Your task to perform on an android device: Go to Wikipedia Image 0: 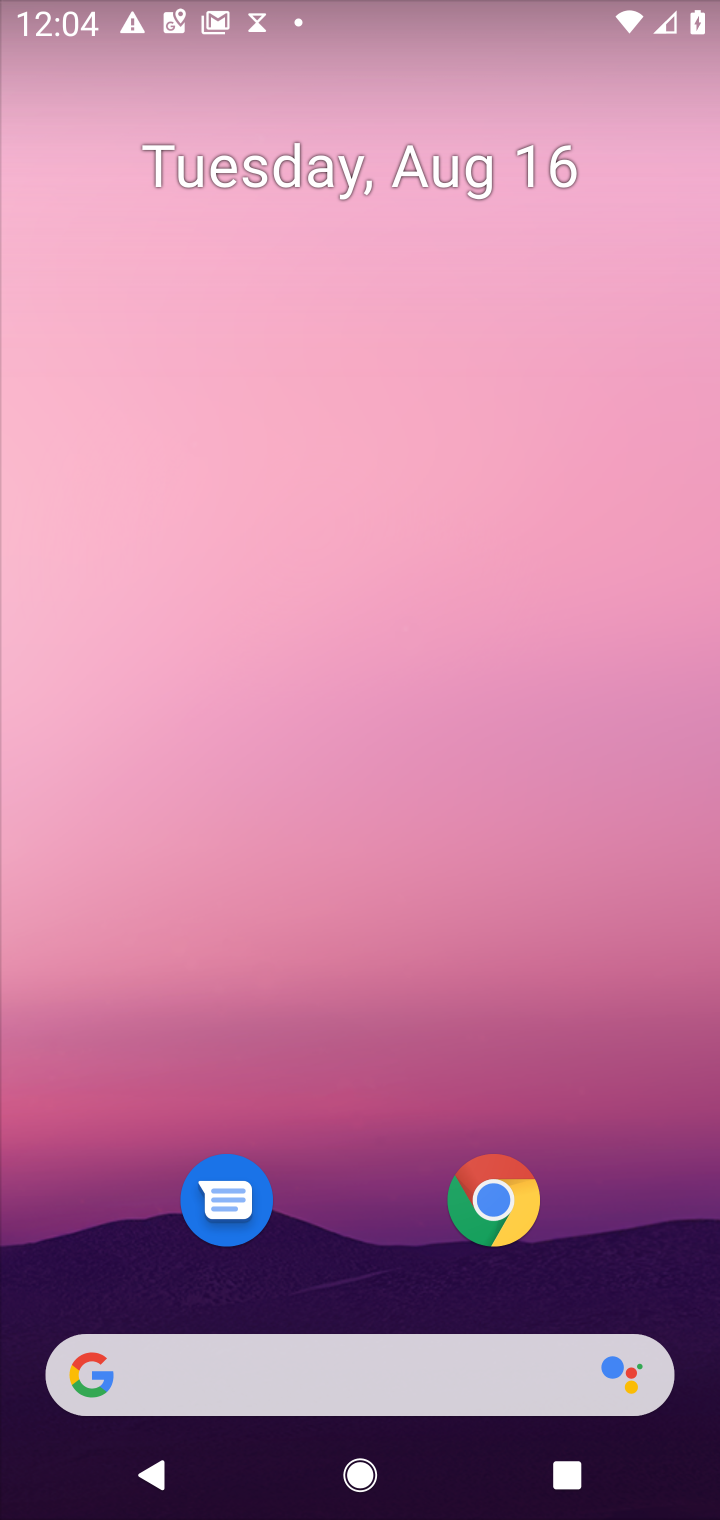
Step 0: click (518, 1200)
Your task to perform on an android device: Go to Wikipedia Image 1: 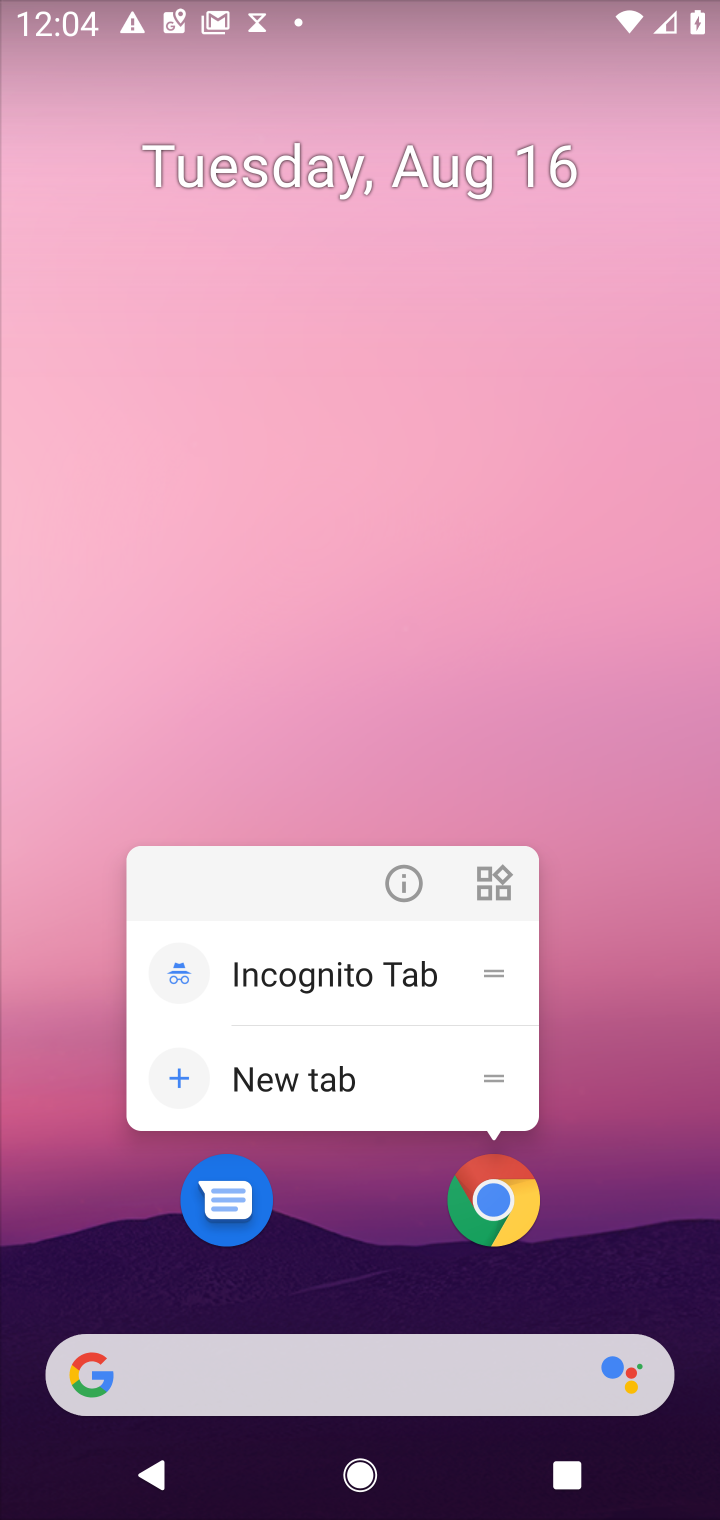
Step 1: click (518, 1200)
Your task to perform on an android device: Go to Wikipedia Image 2: 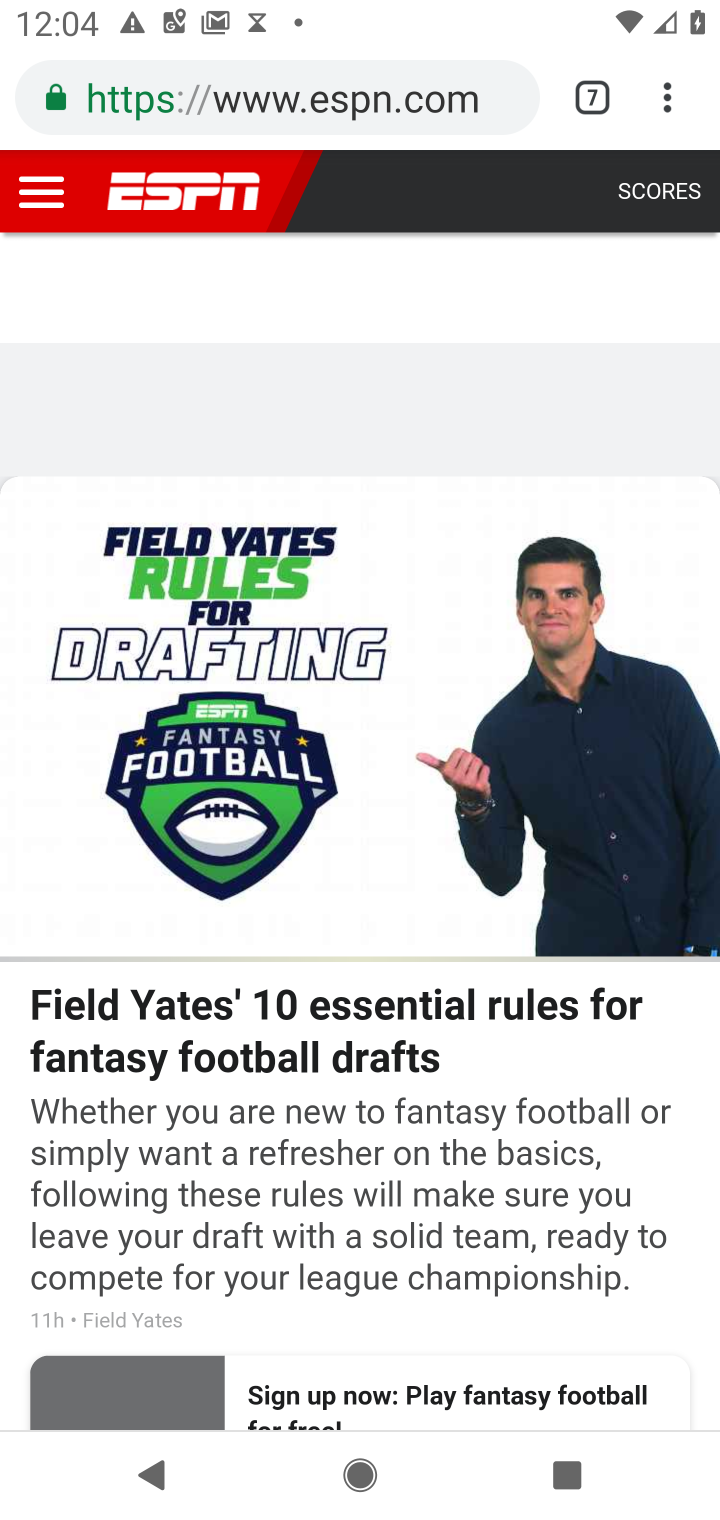
Step 2: click (565, 99)
Your task to perform on an android device: Go to Wikipedia Image 3: 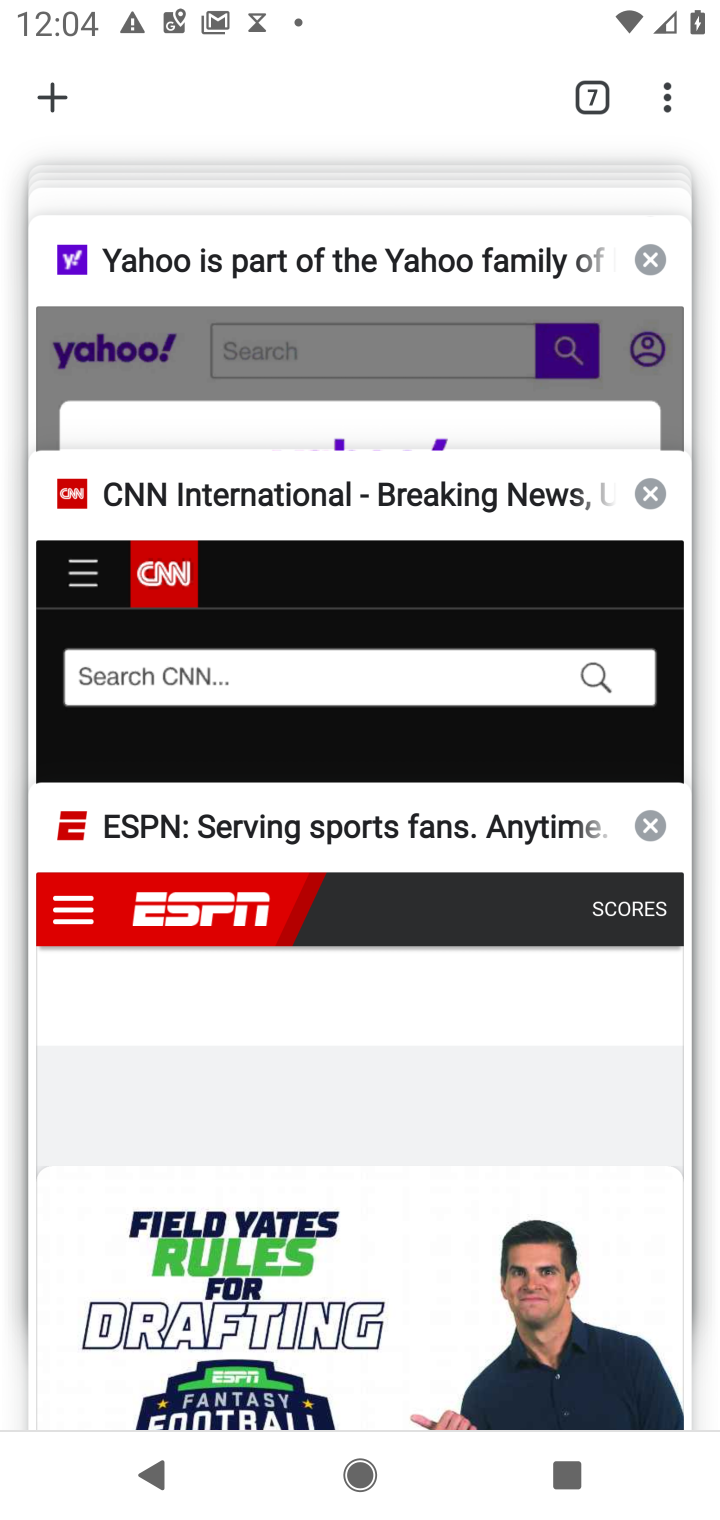
Step 3: click (39, 99)
Your task to perform on an android device: Go to Wikipedia Image 4: 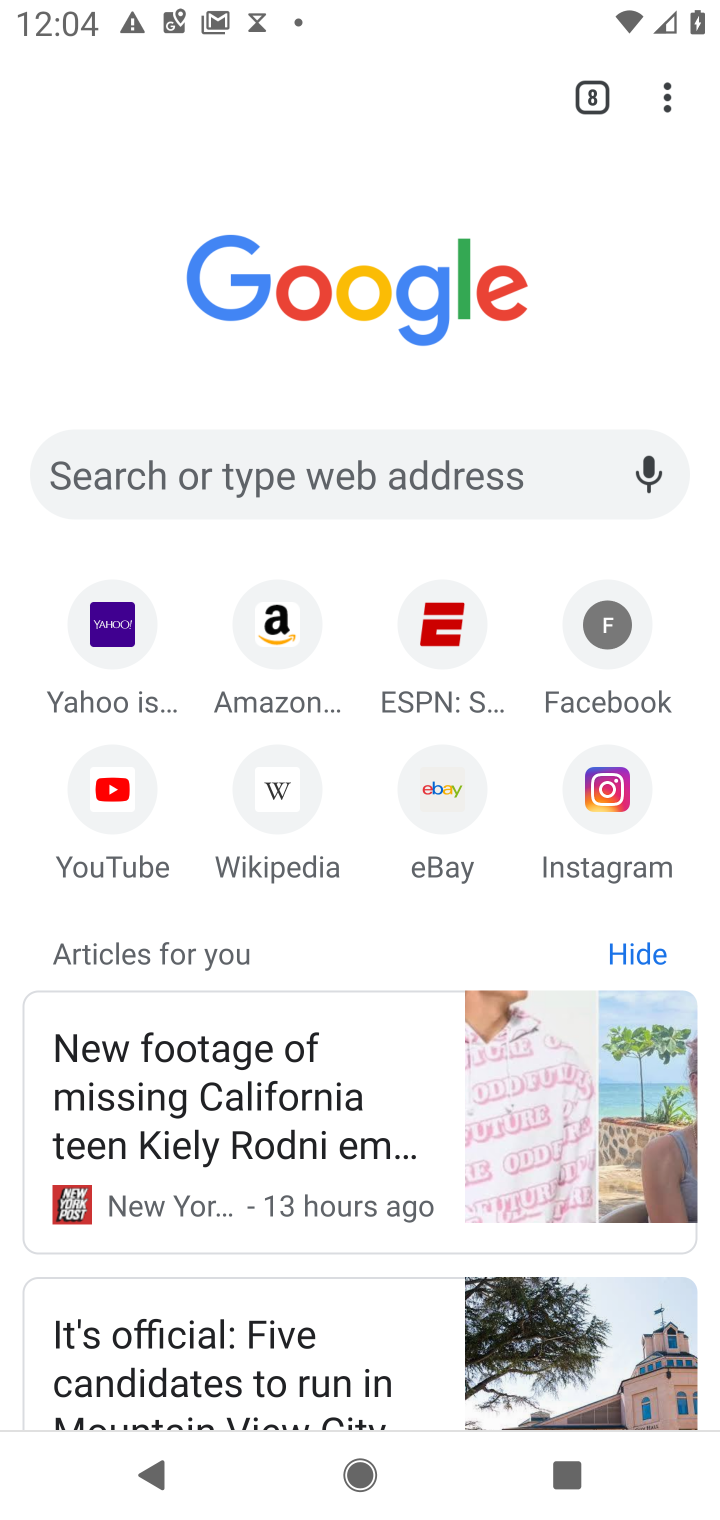
Step 4: click (287, 801)
Your task to perform on an android device: Go to Wikipedia Image 5: 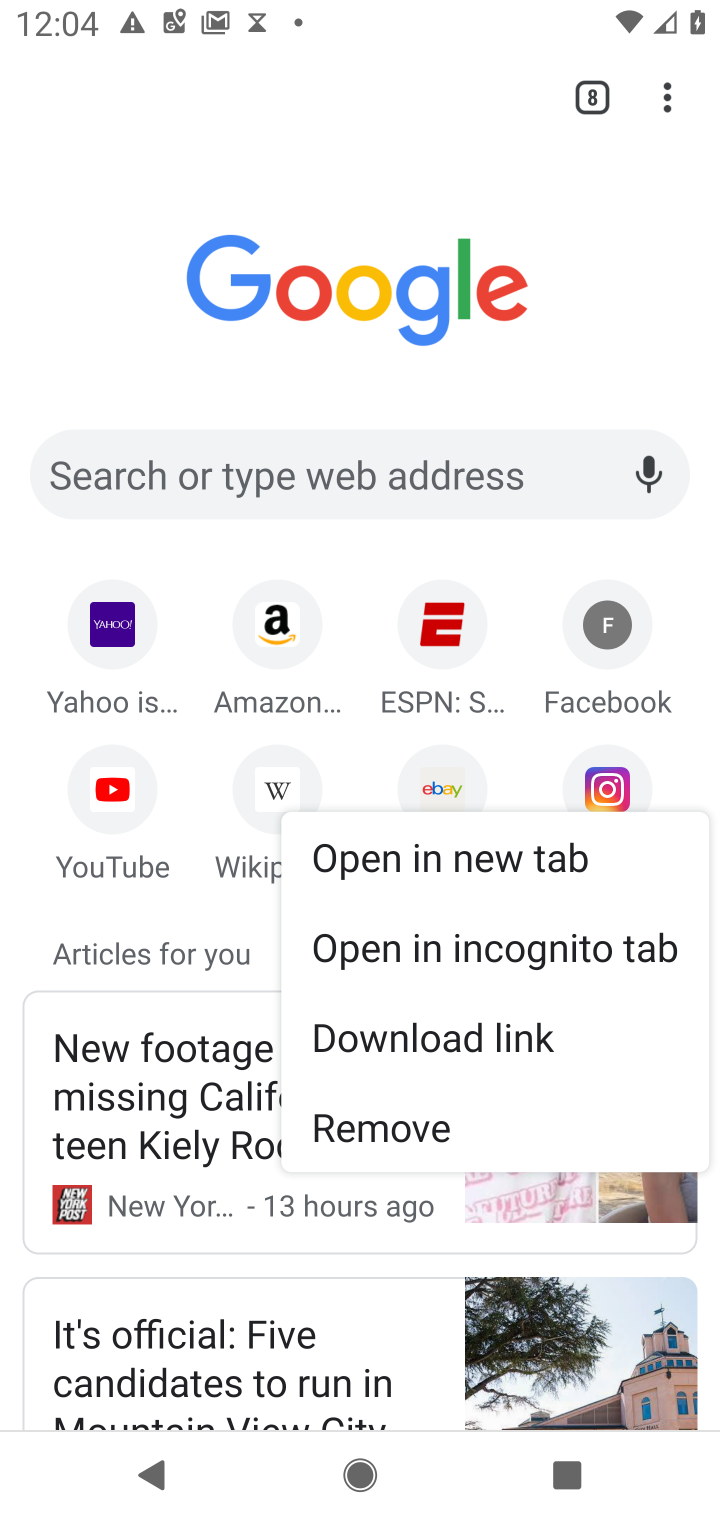
Step 5: click (245, 791)
Your task to perform on an android device: Go to Wikipedia Image 6: 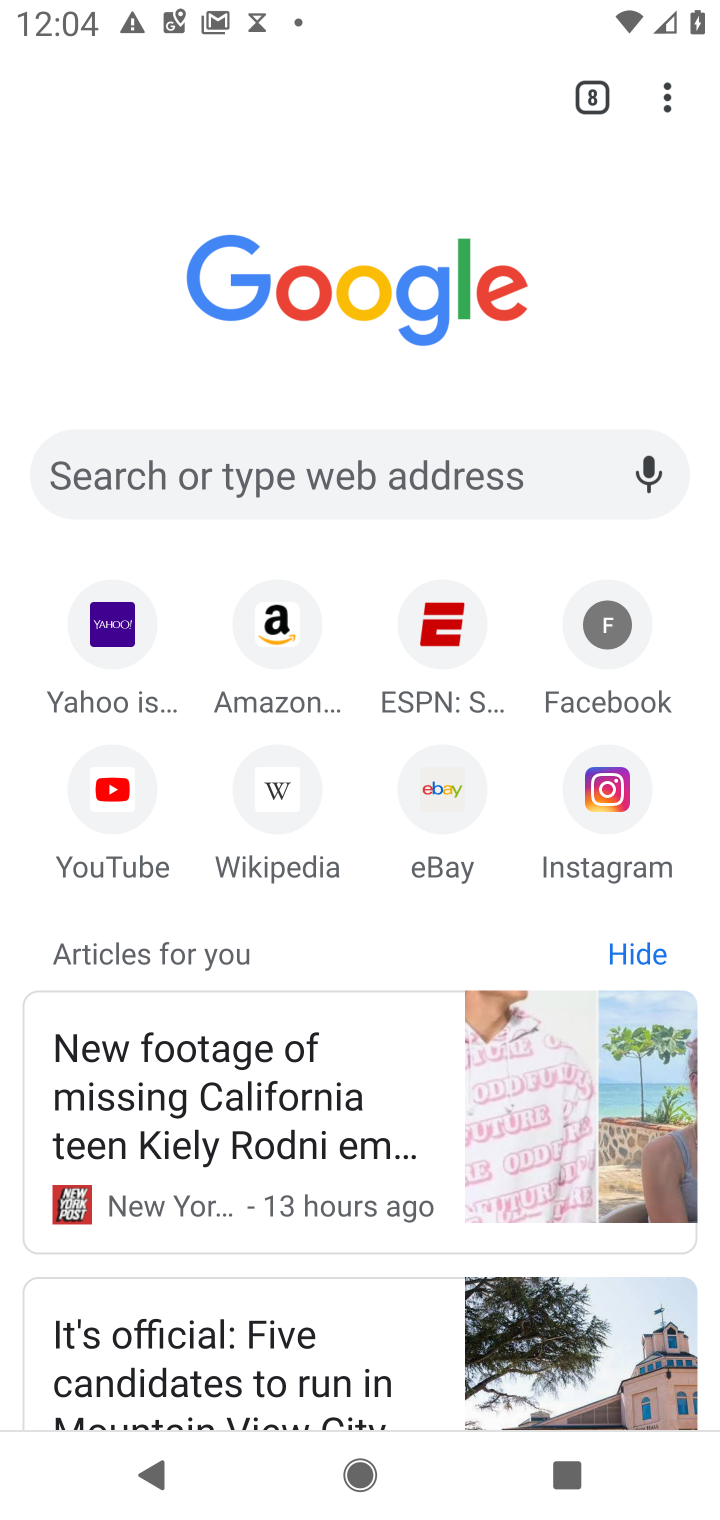
Step 6: click (317, 790)
Your task to perform on an android device: Go to Wikipedia Image 7: 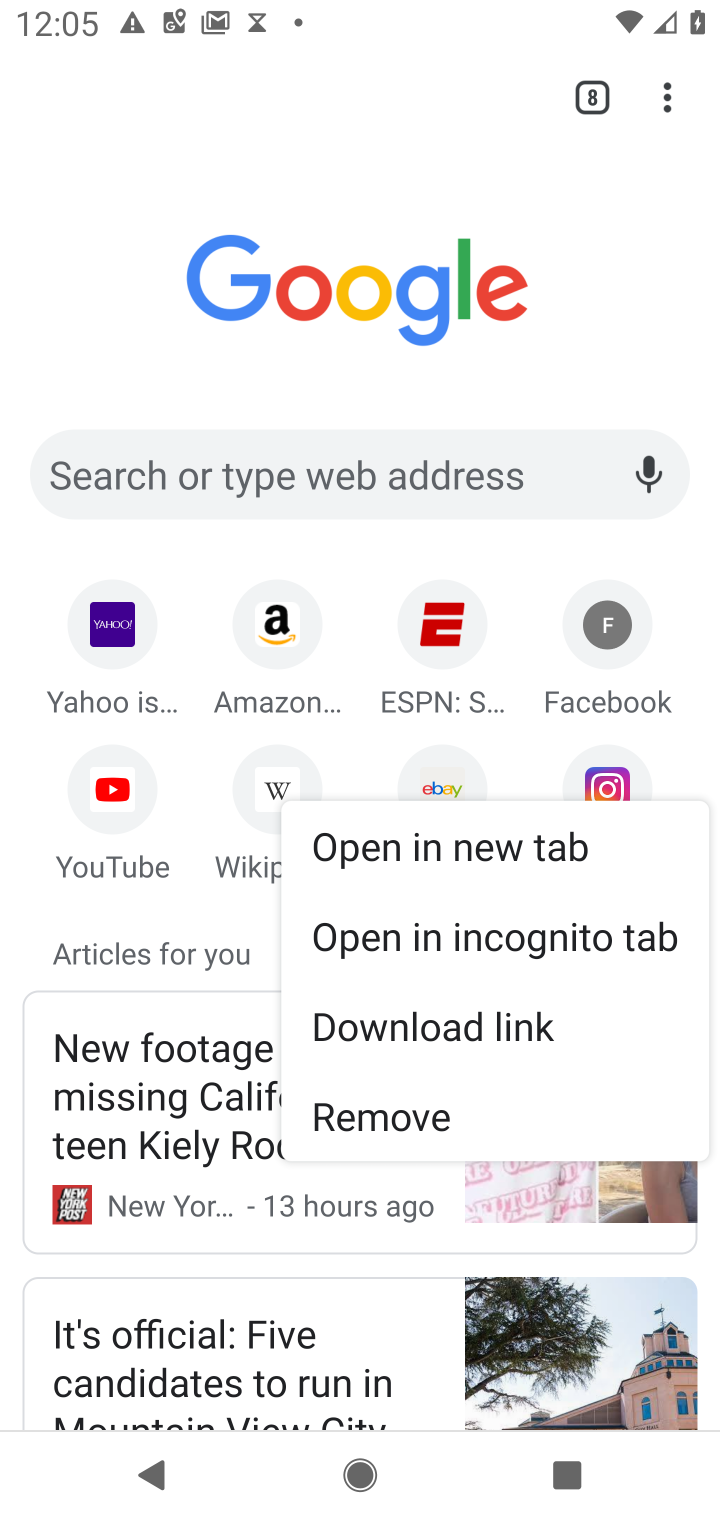
Step 7: click (275, 759)
Your task to perform on an android device: Go to Wikipedia Image 8: 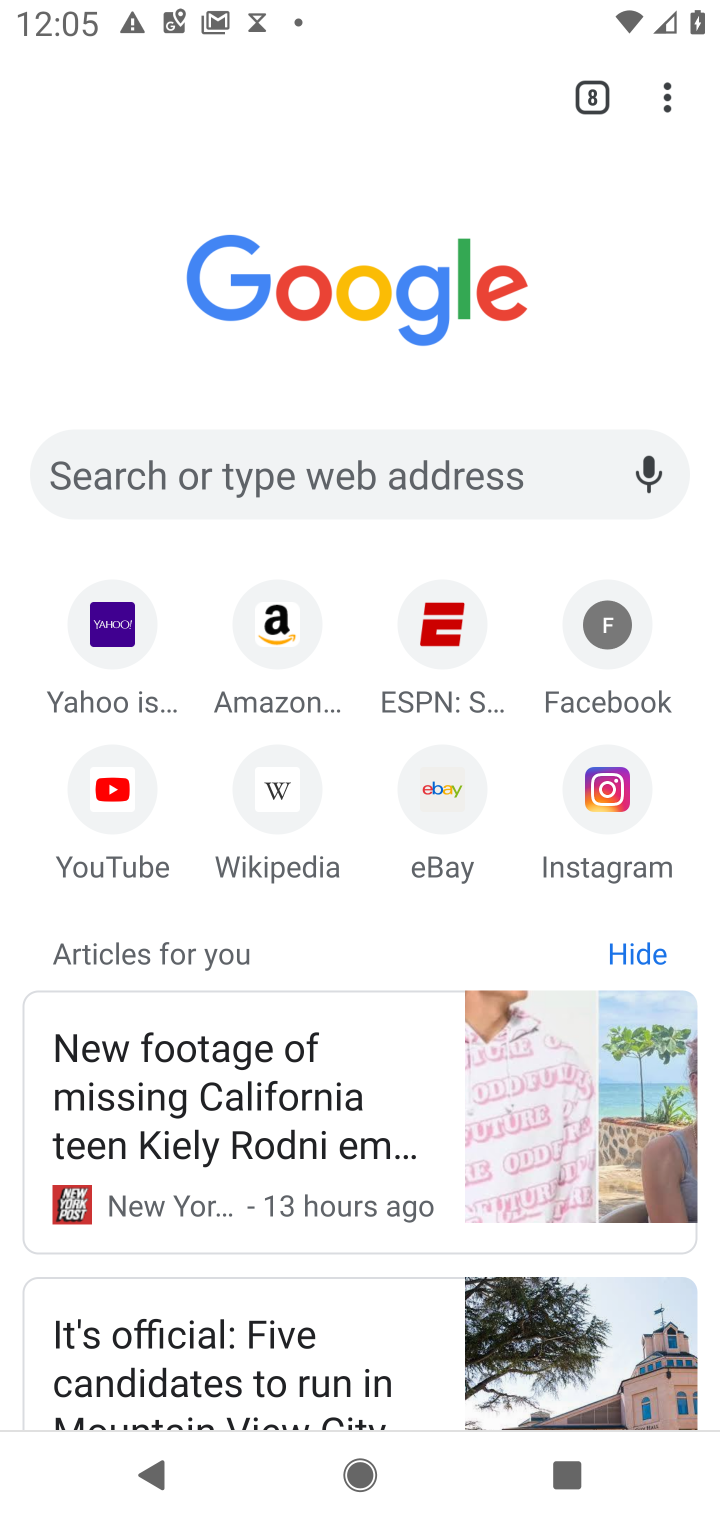
Step 8: click (275, 759)
Your task to perform on an android device: Go to Wikipedia Image 9: 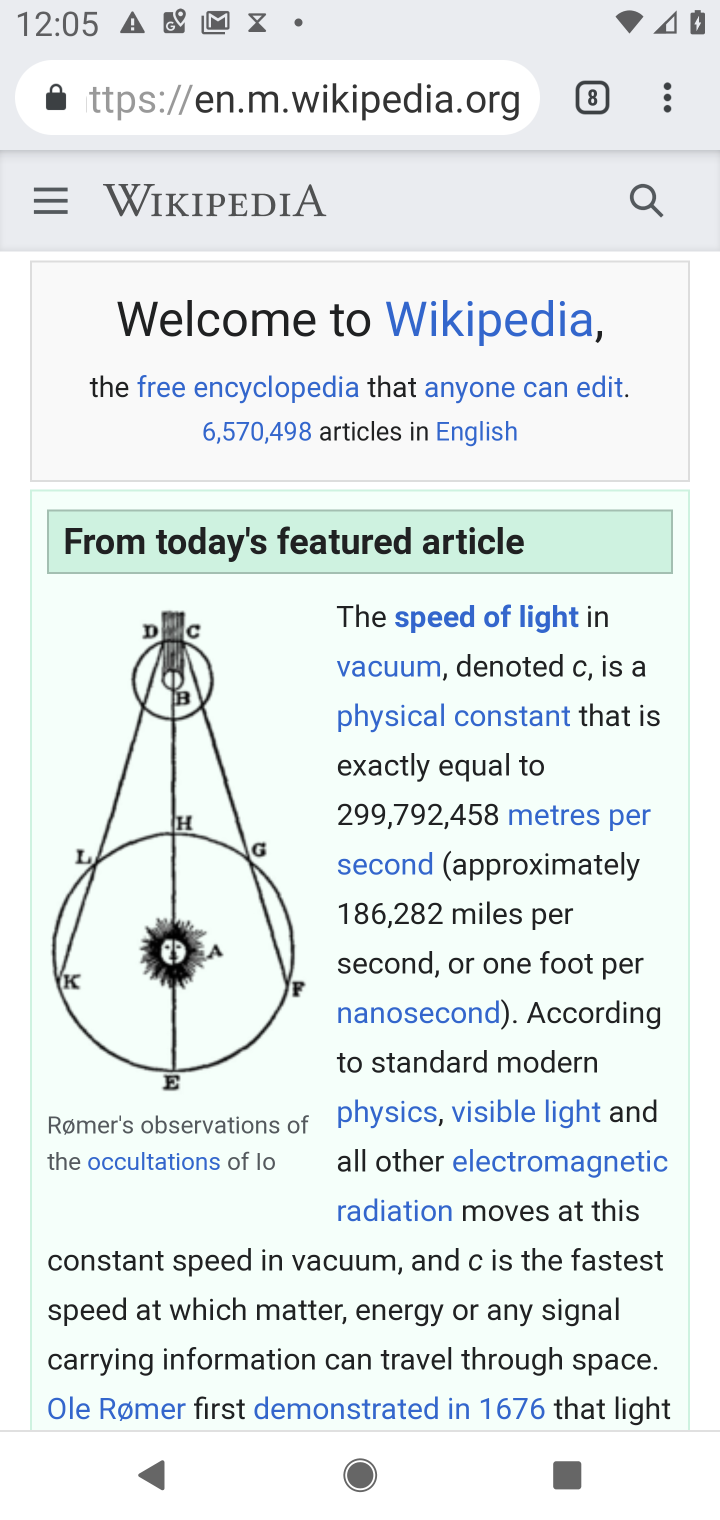
Step 9: task complete